Your task to perform on an android device: Go to Yahoo.com Image 0: 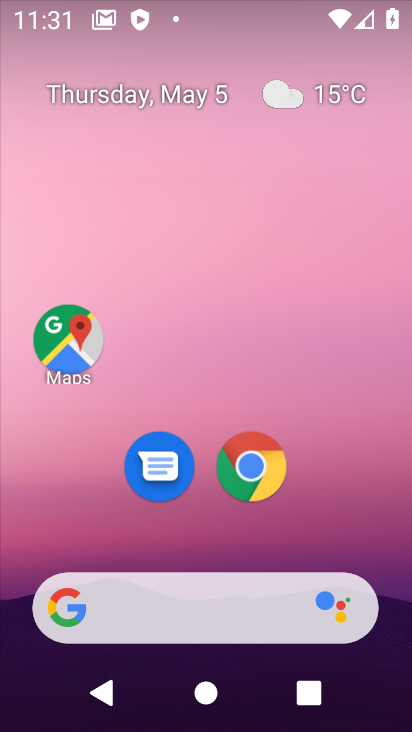
Step 0: click (253, 464)
Your task to perform on an android device: Go to Yahoo.com Image 1: 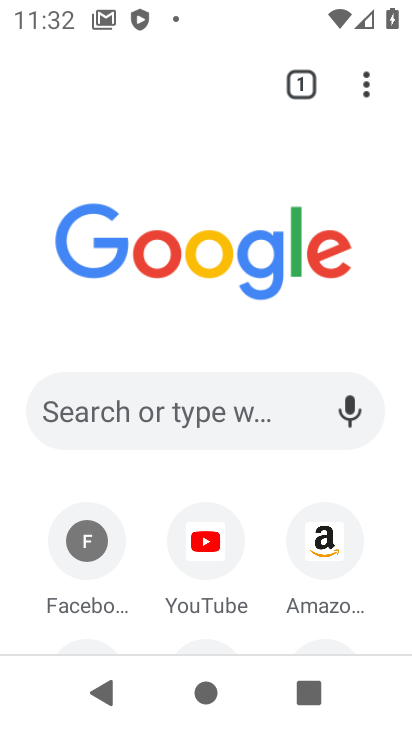
Step 1: click (152, 416)
Your task to perform on an android device: Go to Yahoo.com Image 2: 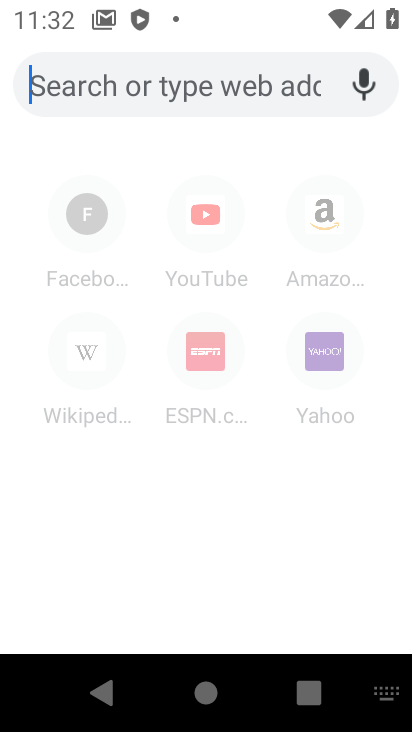
Step 2: type "yahoo.com"
Your task to perform on an android device: Go to Yahoo.com Image 3: 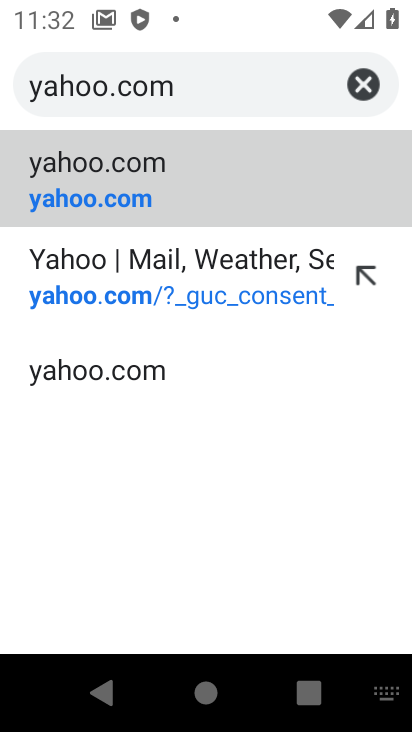
Step 3: click (173, 203)
Your task to perform on an android device: Go to Yahoo.com Image 4: 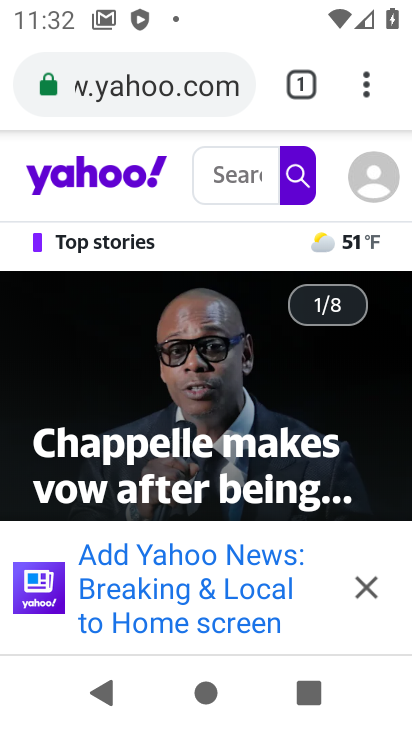
Step 4: task complete